Your task to perform on an android device: Go to display settings Image 0: 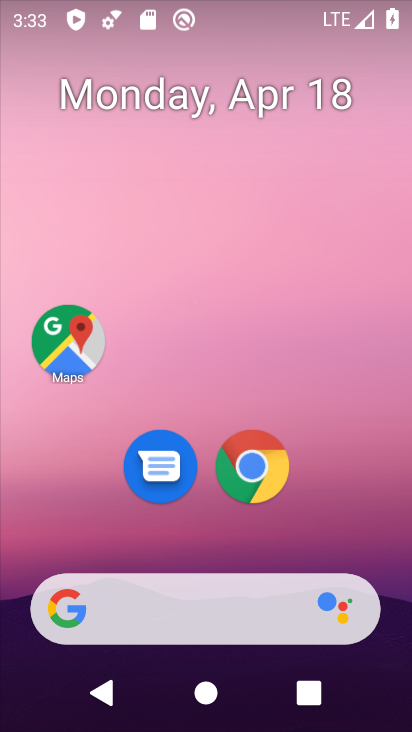
Step 0: drag from (321, 529) to (339, 86)
Your task to perform on an android device: Go to display settings Image 1: 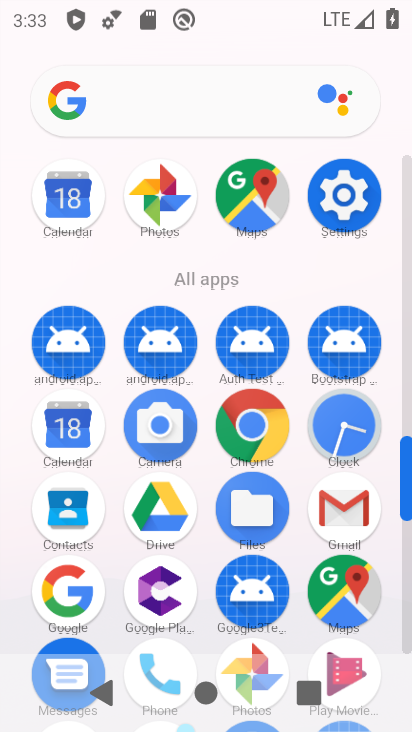
Step 1: click (338, 202)
Your task to perform on an android device: Go to display settings Image 2: 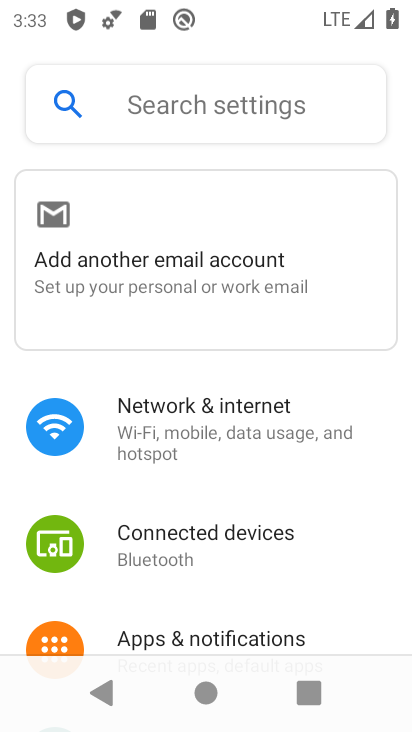
Step 2: drag from (232, 552) to (237, 149)
Your task to perform on an android device: Go to display settings Image 3: 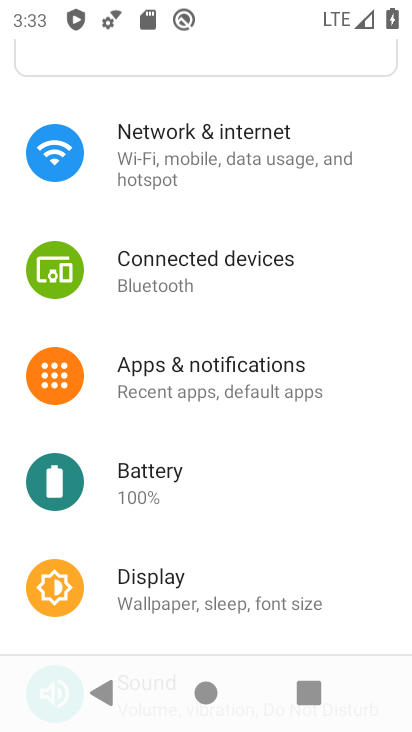
Step 3: click (226, 573)
Your task to perform on an android device: Go to display settings Image 4: 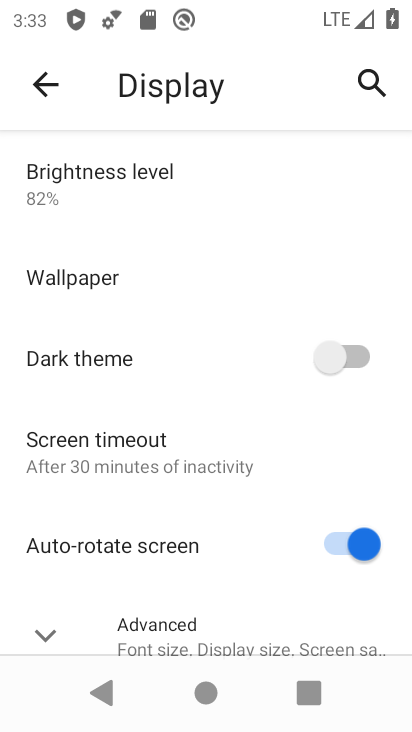
Step 4: task complete